Your task to perform on an android device: turn notification dots off Image 0: 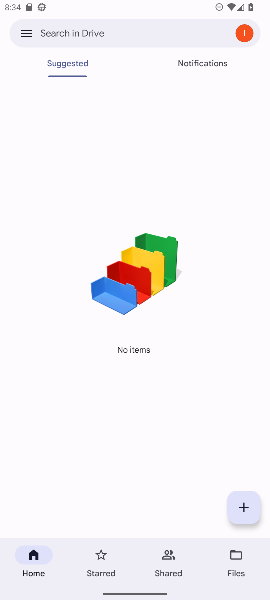
Step 0: press home button
Your task to perform on an android device: turn notification dots off Image 1: 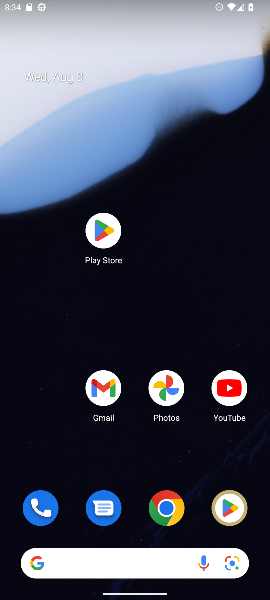
Step 1: drag from (143, 547) to (122, 93)
Your task to perform on an android device: turn notification dots off Image 2: 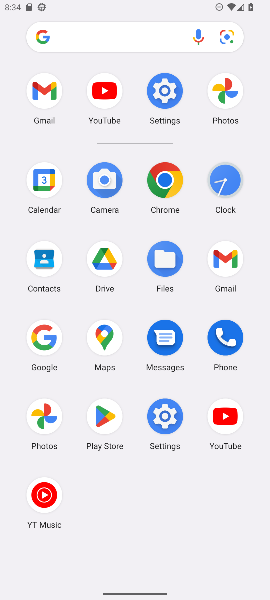
Step 2: click (152, 412)
Your task to perform on an android device: turn notification dots off Image 3: 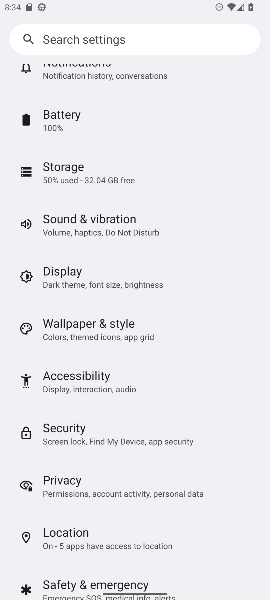
Step 3: drag from (150, 232) to (121, 464)
Your task to perform on an android device: turn notification dots off Image 4: 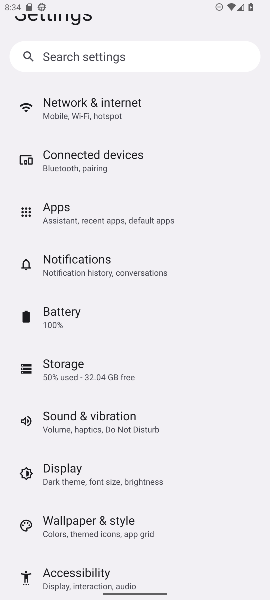
Step 4: click (88, 249)
Your task to perform on an android device: turn notification dots off Image 5: 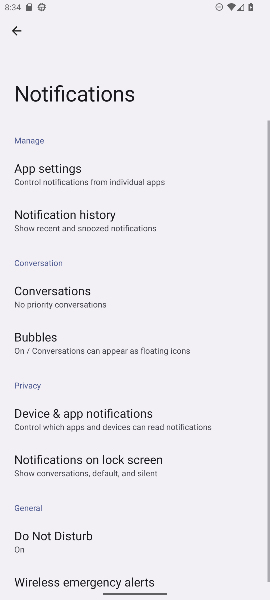
Step 5: task complete